Your task to perform on an android device: toggle javascript in the chrome app Image 0: 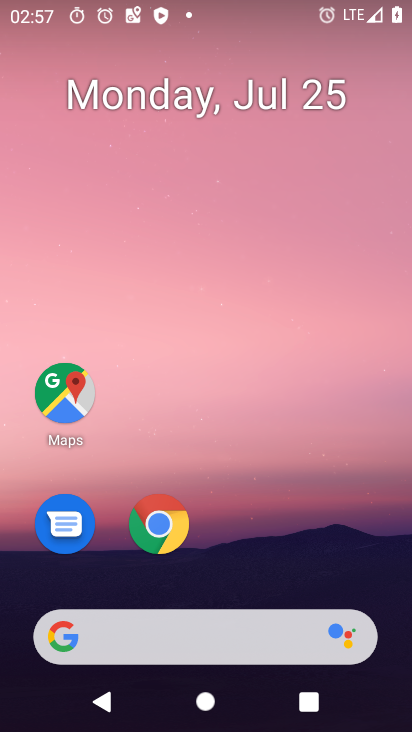
Step 0: press home button
Your task to perform on an android device: toggle javascript in the chrome app Image 1: 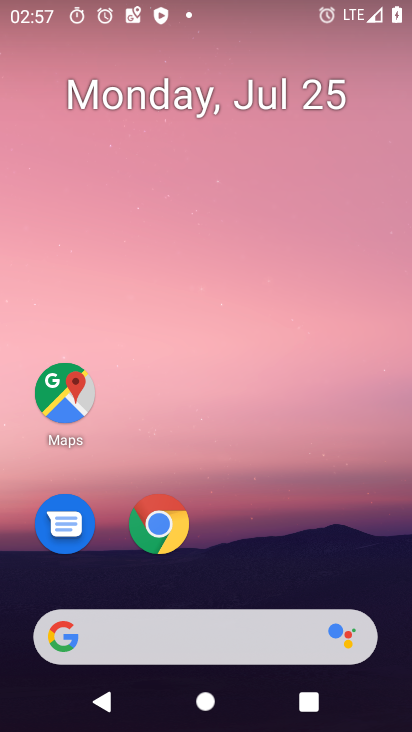
Step 1: drag from (261, 585) to (359, 32)
Your task to perform on an android device: toggle javascript in the chrome app Image 2: 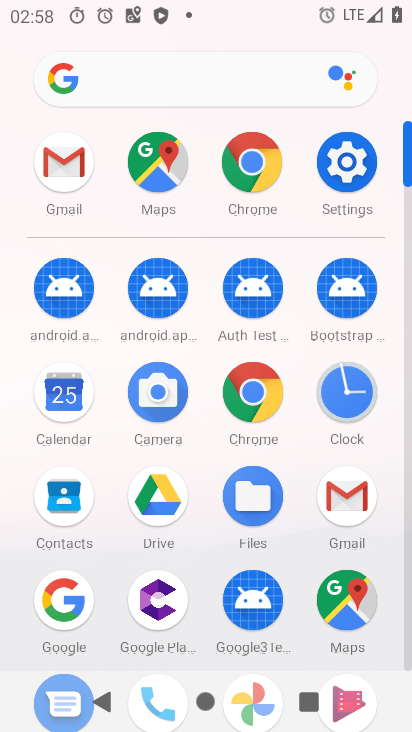
Step 2: click (253, 160)
Your task to perform on an android device: toggle javascript in the chrome app Image 3: 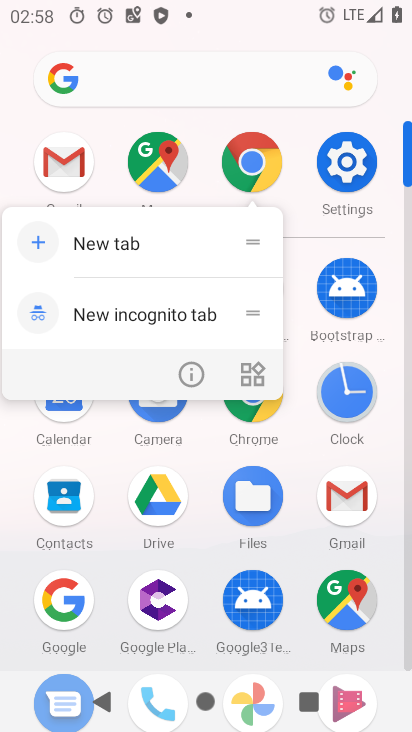
Step 3: click (253, 160)
Your task to perform on an android device: toggle javascript in the chrome app Image 4: 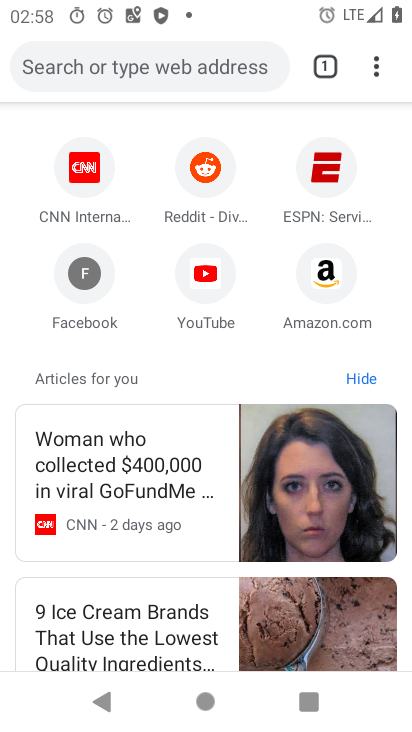
Step 4: drag from (370, 66) to (151, 547)
Your task to perform on an android device: toggle javascript in the chrome app Image 5: 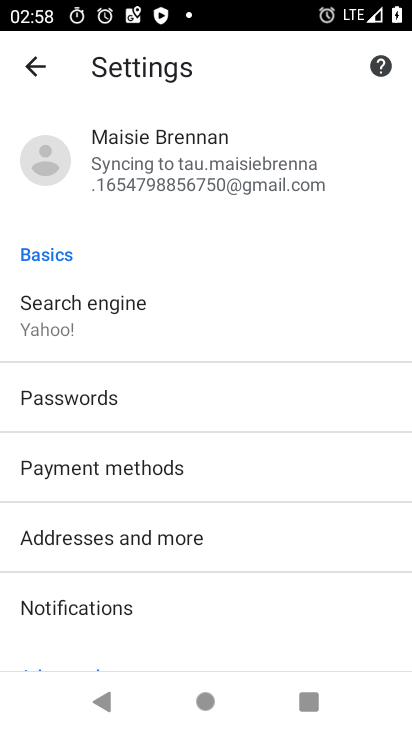
Step 5: drag from (240, 605) to (271, 225)
Your task to perform on an android device: toggle javascript in the chrome app Image 6: 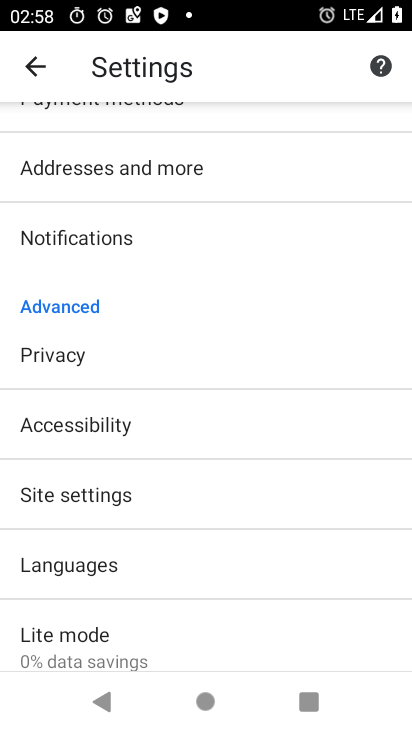
Step 6: click (75, 499)
Your task to perform on an android device: toggle javascript in the chrome app Image 7: 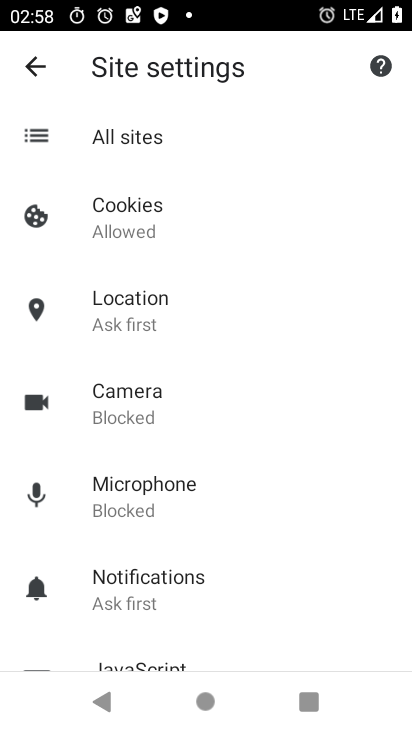
Step 7: drag from (350, 621) to (330, 281)
Your task to perform on an android device: toggle javascript in the chrome app Image 8: 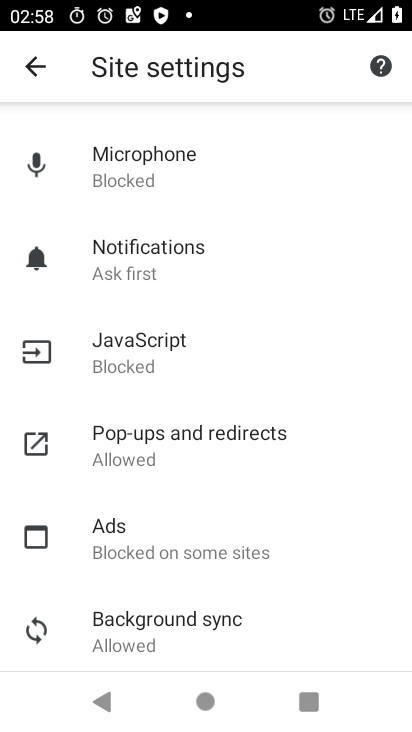
Step 8: click (127, 359)
Your task to perform on an android device: toggle javascript in the chrome app Image 9: 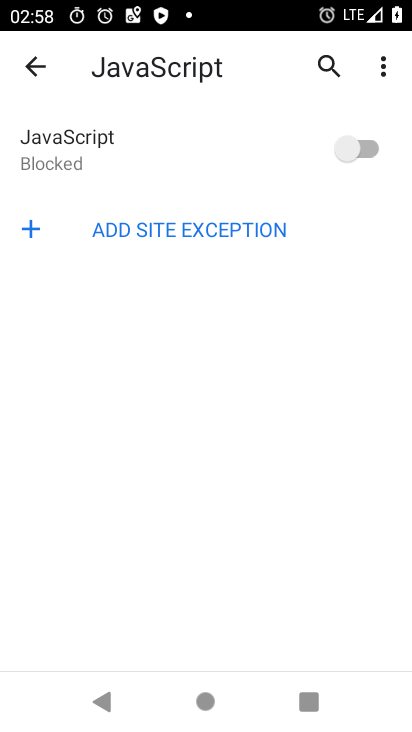
Step 9: click (351, 146)
Your task to perform on an android device: toggle javascript in the chrome app Image 10: 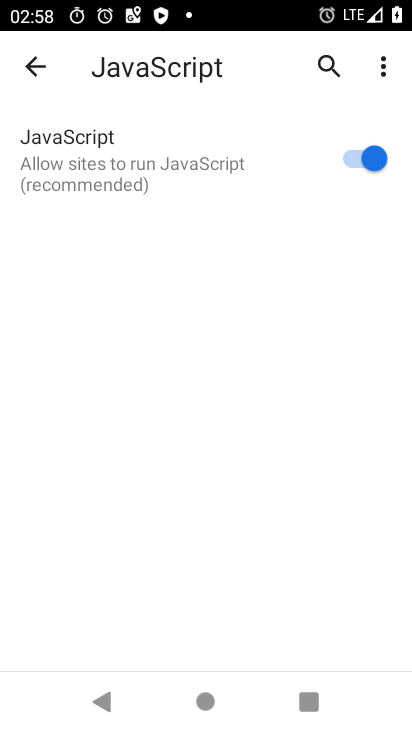
Step 10: task complete